Your task to perform on an android device: turn off data saver in the chrome app Image 0: 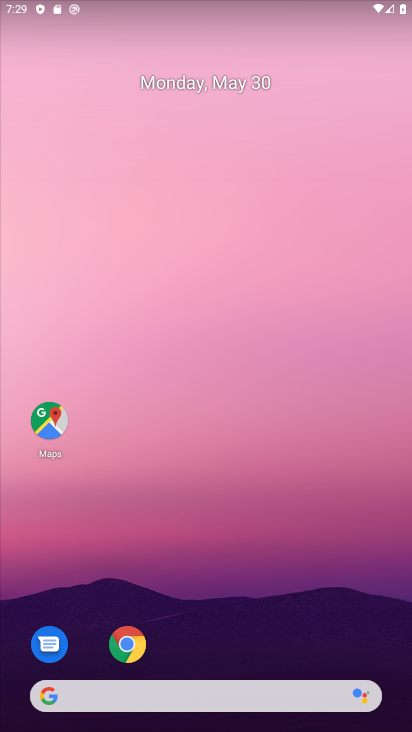
Step 0: click (336, 109)
Your task to perform on an android device: turn off data saver in the chrome app Image 1: 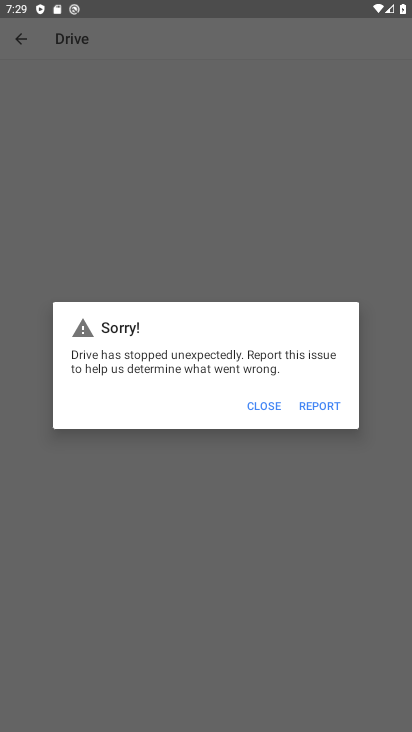
Step 1: press home button
Your task to perform on an android device: turn off data saver in the chrome app Image 2: 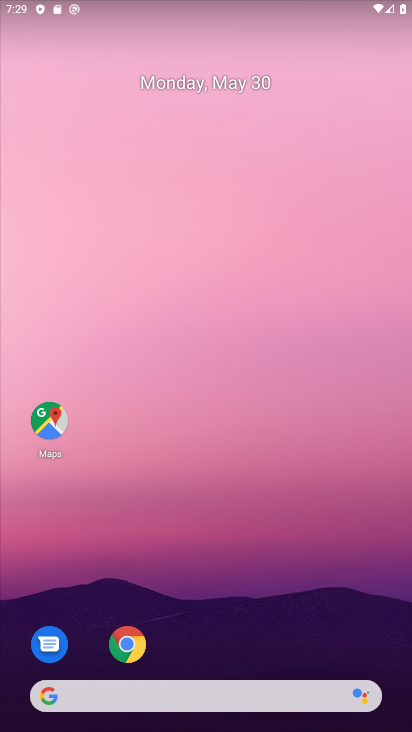
Step 2: click (127, 645)
Your task to perform on an android device: turn off data saver in the chrome app Image 3: 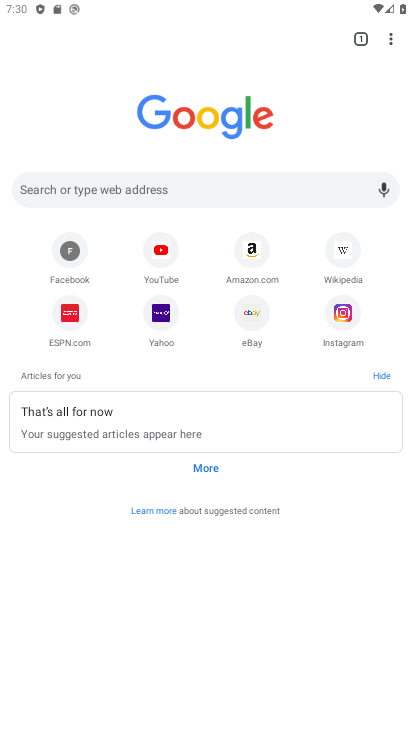
Step 3: click (390, 38)
Your task to perform on an android device: turn off data saver in the chrome app Image 4: 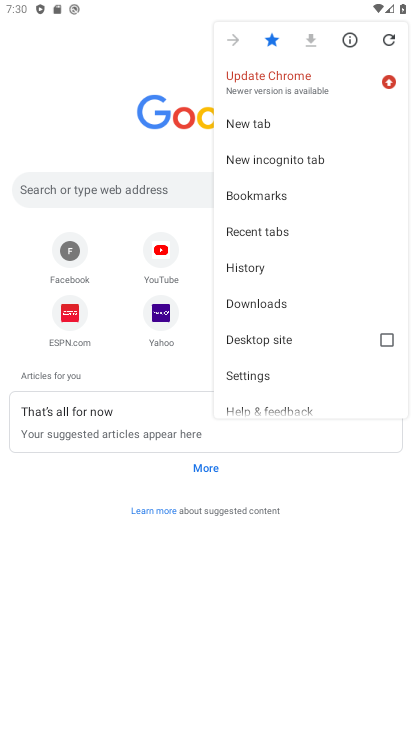
Step 4: click (251, 374)
Your task to perform on an android device: turn off data saver in the chrome app Image 5: 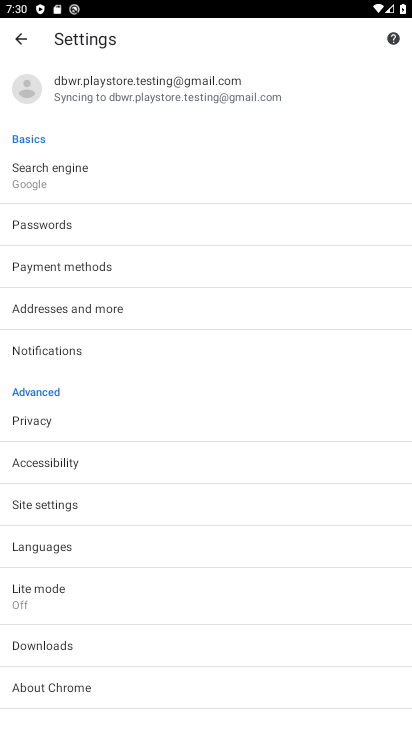
Step 5: click (54, 589)
Your task to perform on an android device: turn off data saver in the chrome app Image 6: 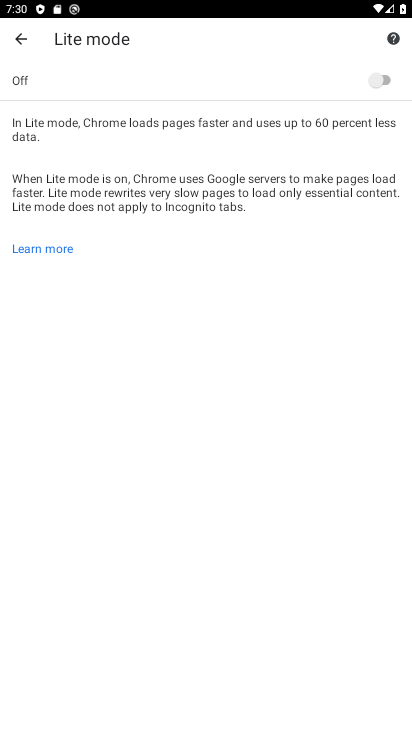
Step 6: task complete